Your task to perform on an android device: Show me the alarms in the clock app Image 0: 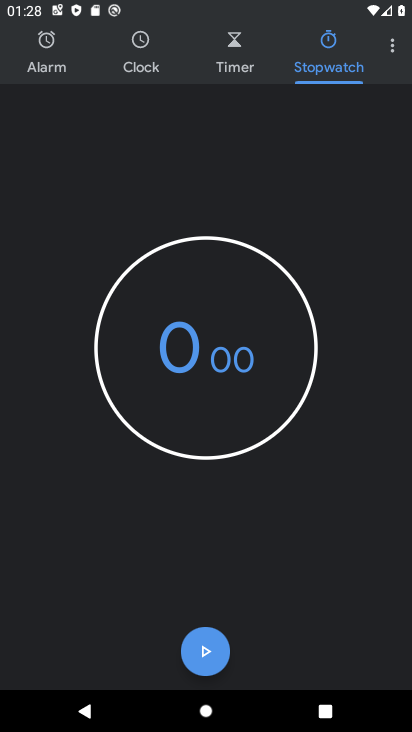
Step 0: click (60, 51)
Your task to perform on an android device: Show me the alarms in the clock app Image 1: 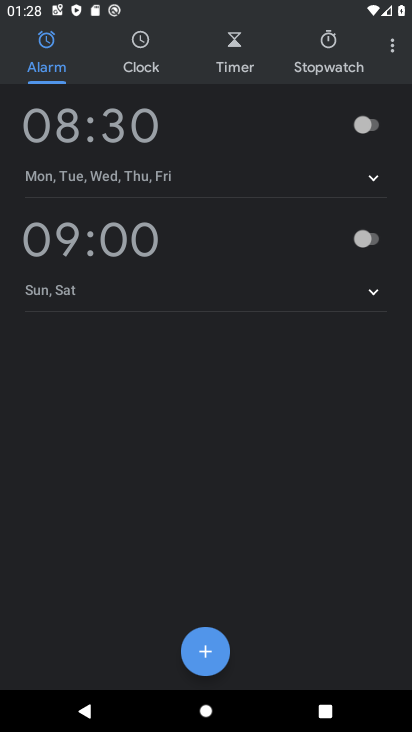
Step 1: task complete